Your task to perform on an android device: change text size in settings app Image 0: 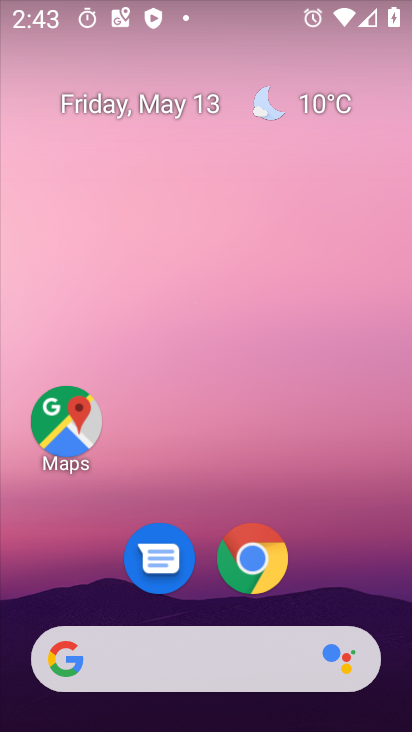
Step 0: drag from (204, 598) to (222, 231)
Your task to perform on an android device: change text size in settings app Image 1: 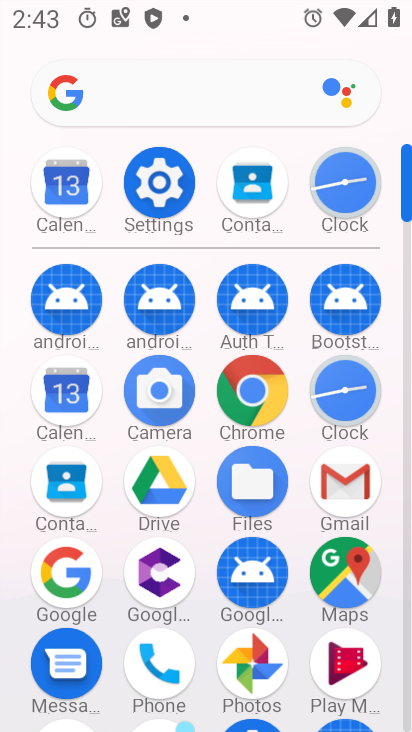
Step 1: click (179, 190)
Your task to perform on an android device: change text size in settings app Image 2: 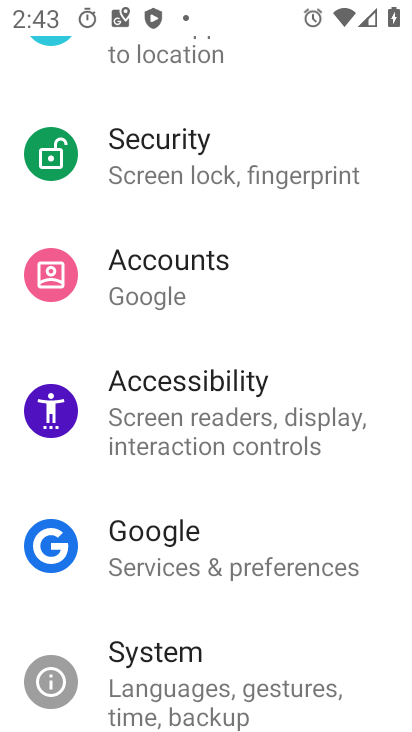
Step 2: drag from (267, 582) to (272, 305)
Your task to perform on an android device: change text size in settings app Image 3: 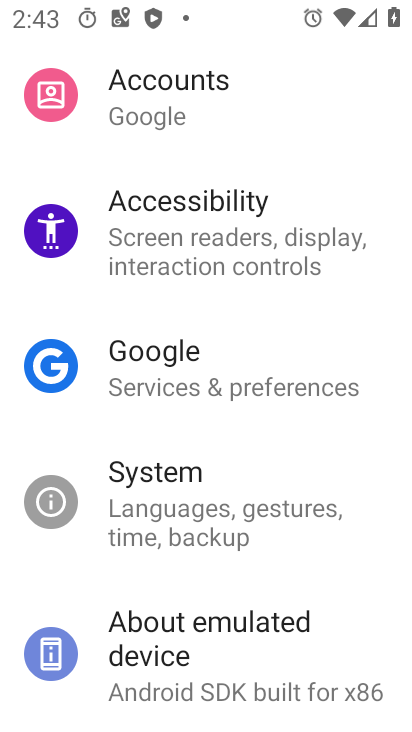
Step 3: click (227, 577)
Your task to perform on an android device: change text size in settings app Image 4: 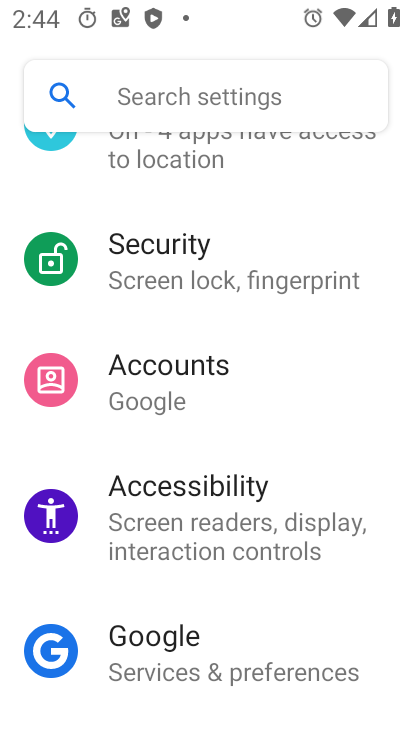
Step 4: drag from (203, 281) to (209, 564)
Your task to perform on an android device: change text size in settings app Image 5: 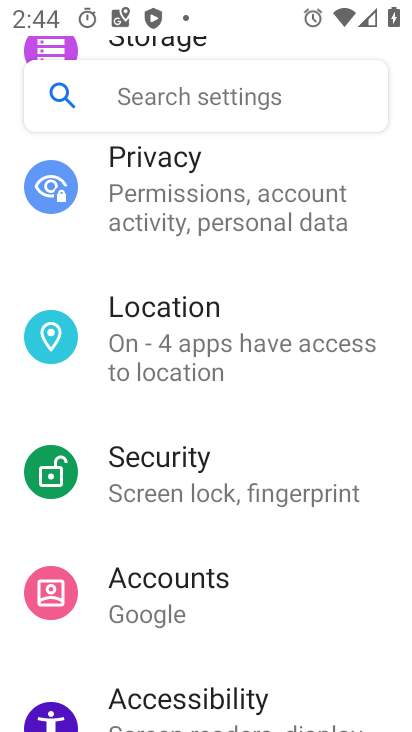
Step 5: drag from (194, 269) to (218, 479)
Your task to perform on an android device: change text size in settings app Image 6: 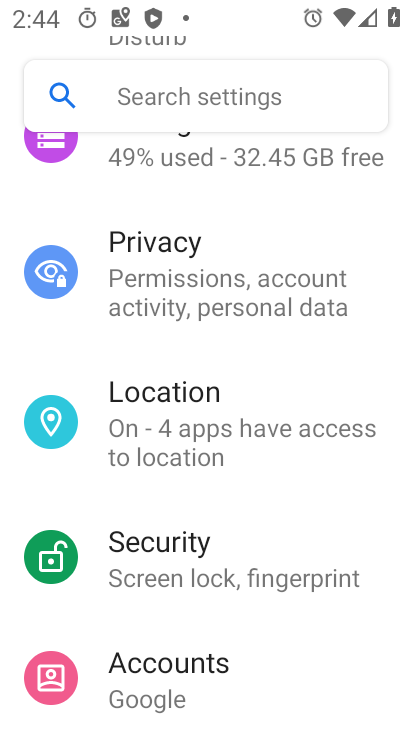
Step 6: drag from (219, 294) to (220, 492)
Your task to perform on an android device: change text size in settings app Image 7: 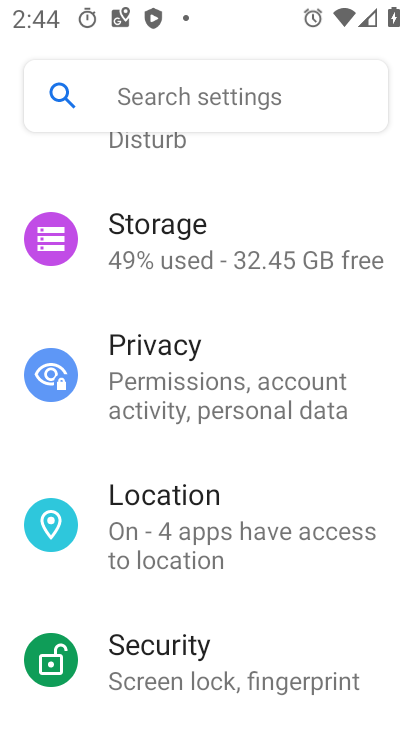
Step 7: drag from (225, 316) to (257, 538)
Your task to perform on an android device: change text size in settings app Image 8: 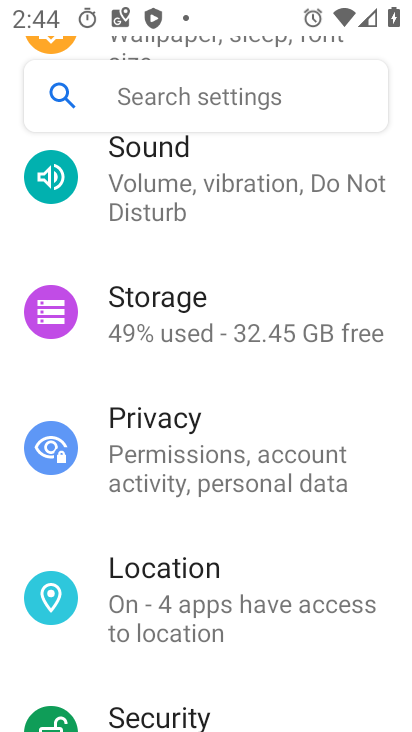
Step 8: drag from (243, 321) to (248, 480)
Your task to perform on an android device: change text size in settings app Image 9: 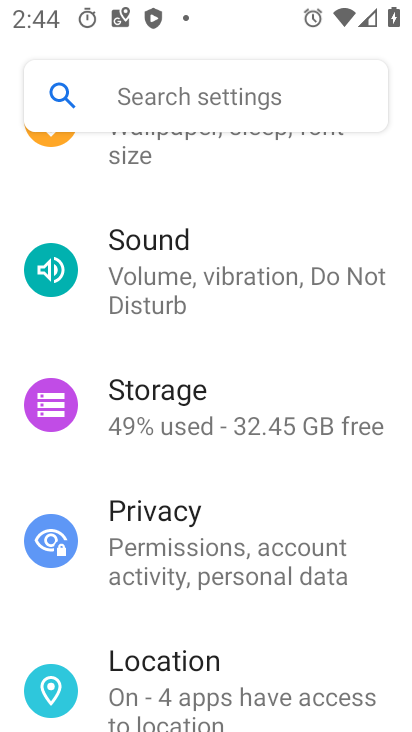
Step 9: drag from (255, 265) to (296, 568)
Your task to perform on an android device: change text size in settings app Image 10: 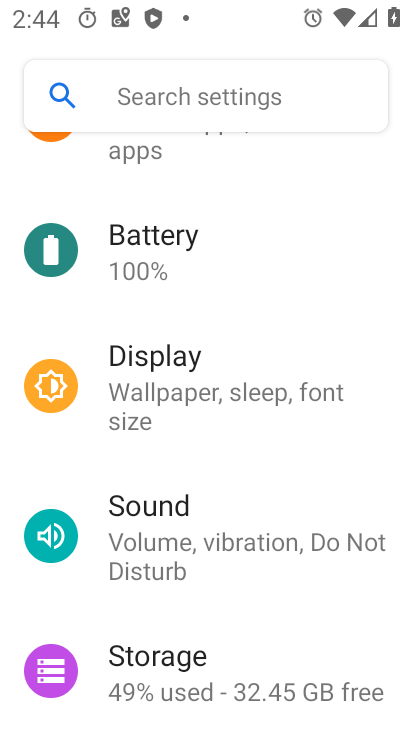
Step 10: click (213, 388)
Your task to perform on an android device: change text size in settings app Image 11: 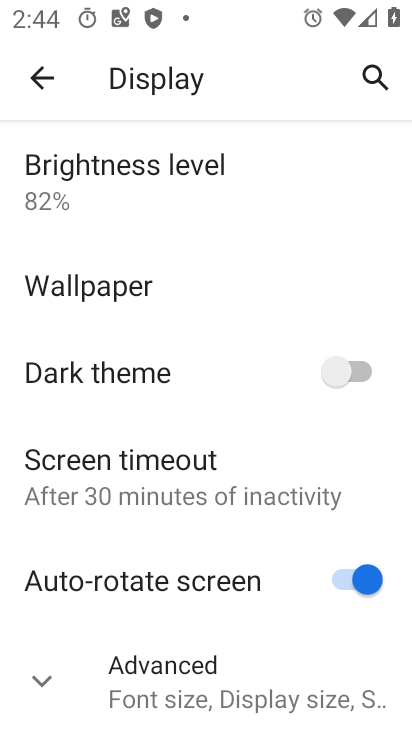
Step 11: drag from (188, 628) to (194, 407)
Your task to perform on an android device: change text size in settings app Image 12: 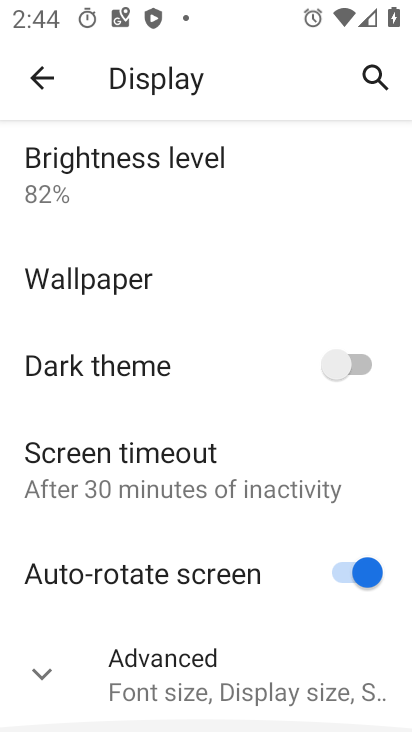
Step 12: click (195, 647)
Your task to perform on an android device: change text size in settings app Image 13: 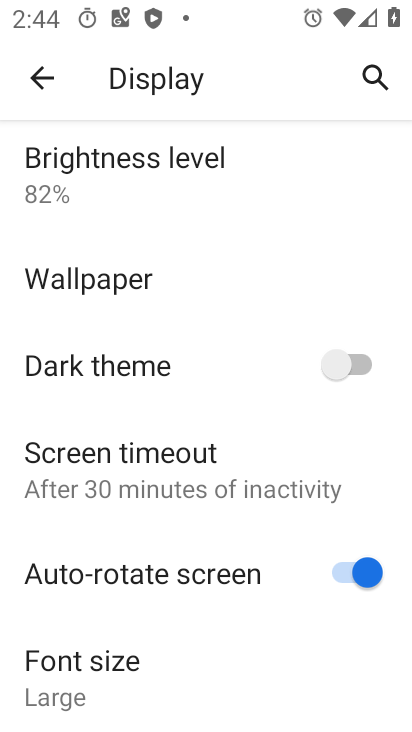
Step 13: drag from (96, 639) to (152, 472)
Your task to perform on an android device: change text size in settings app Image 14: 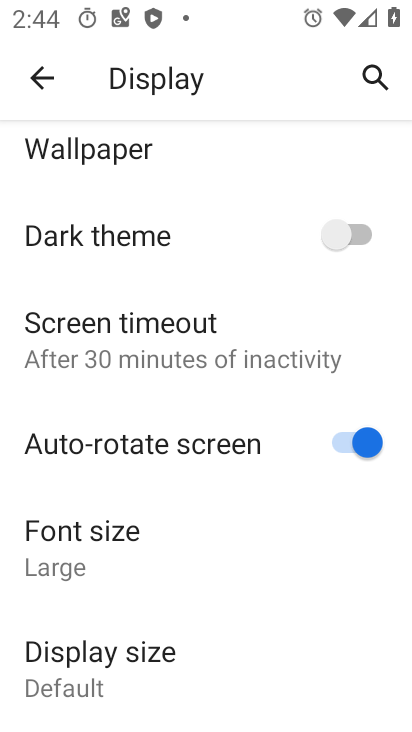
Step 14: click (137, 557)
Your task to perform on an android device: change text size in settings app Image 15: 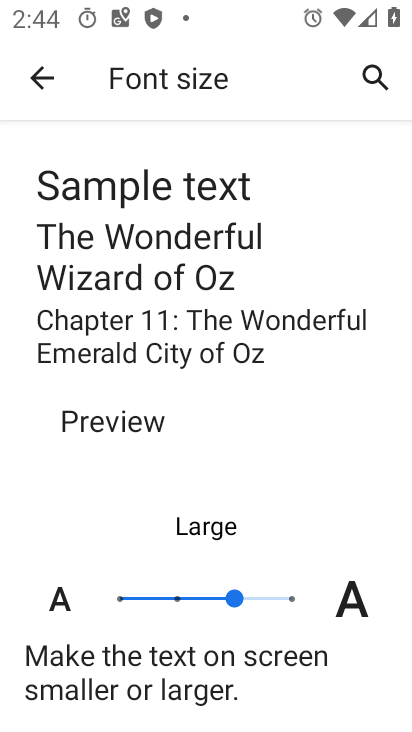
Step 15: click (117, 592)
Your task to perform on an android device: change text size in settings app Image 16: 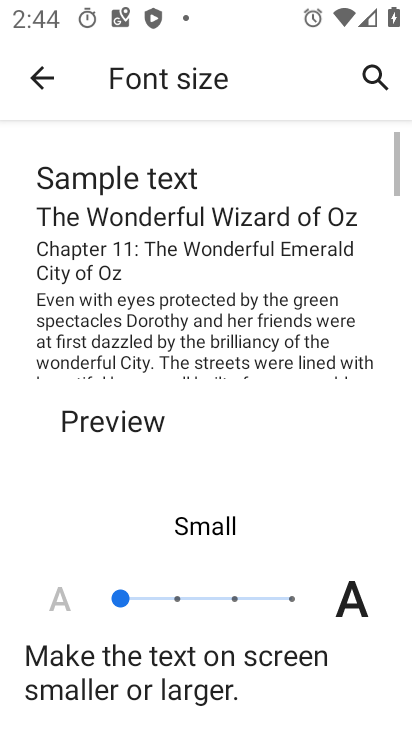
Step 16: task complete